Your task to perform on an android device: install app "Google Play services" Image 0: 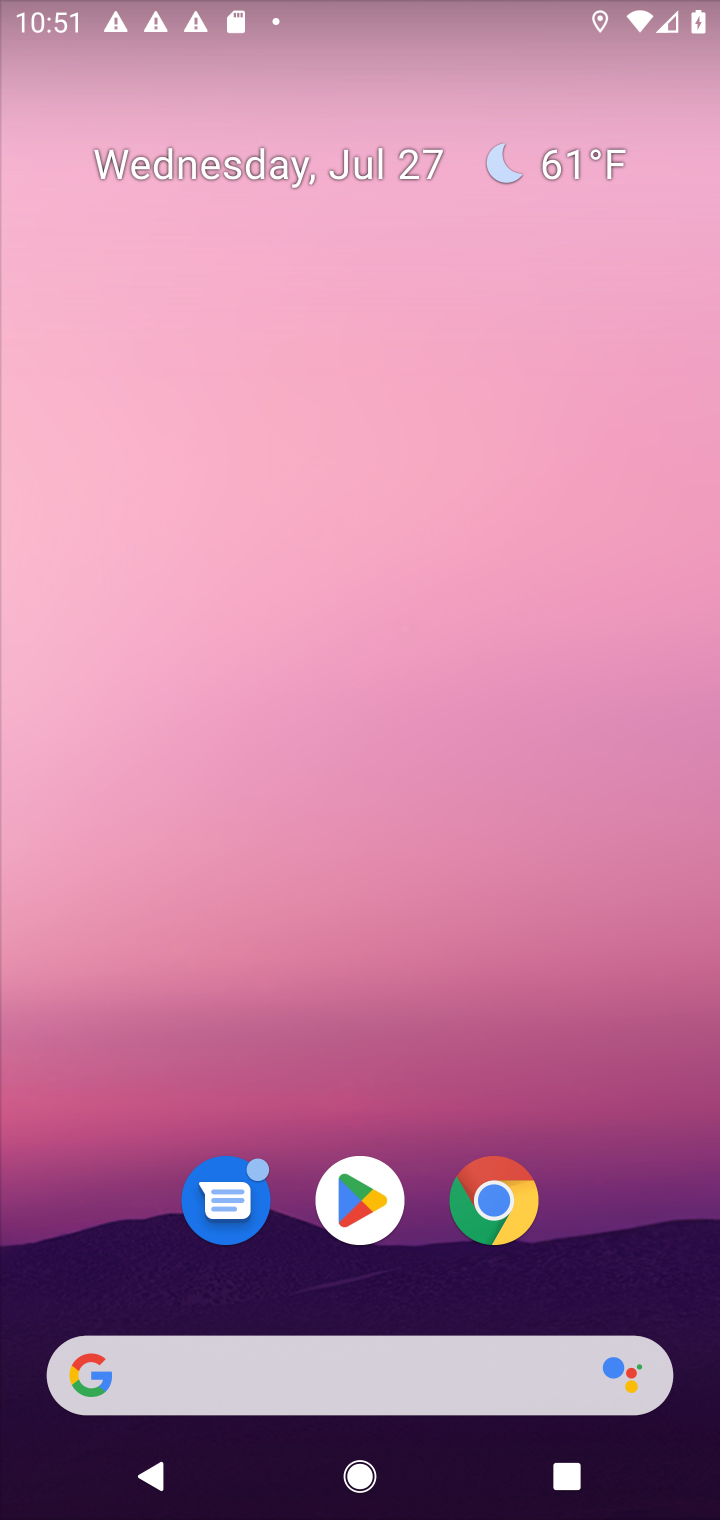
Step 0: press home button
Your task to perform on an android device: install app "Google Play services" Image 1: 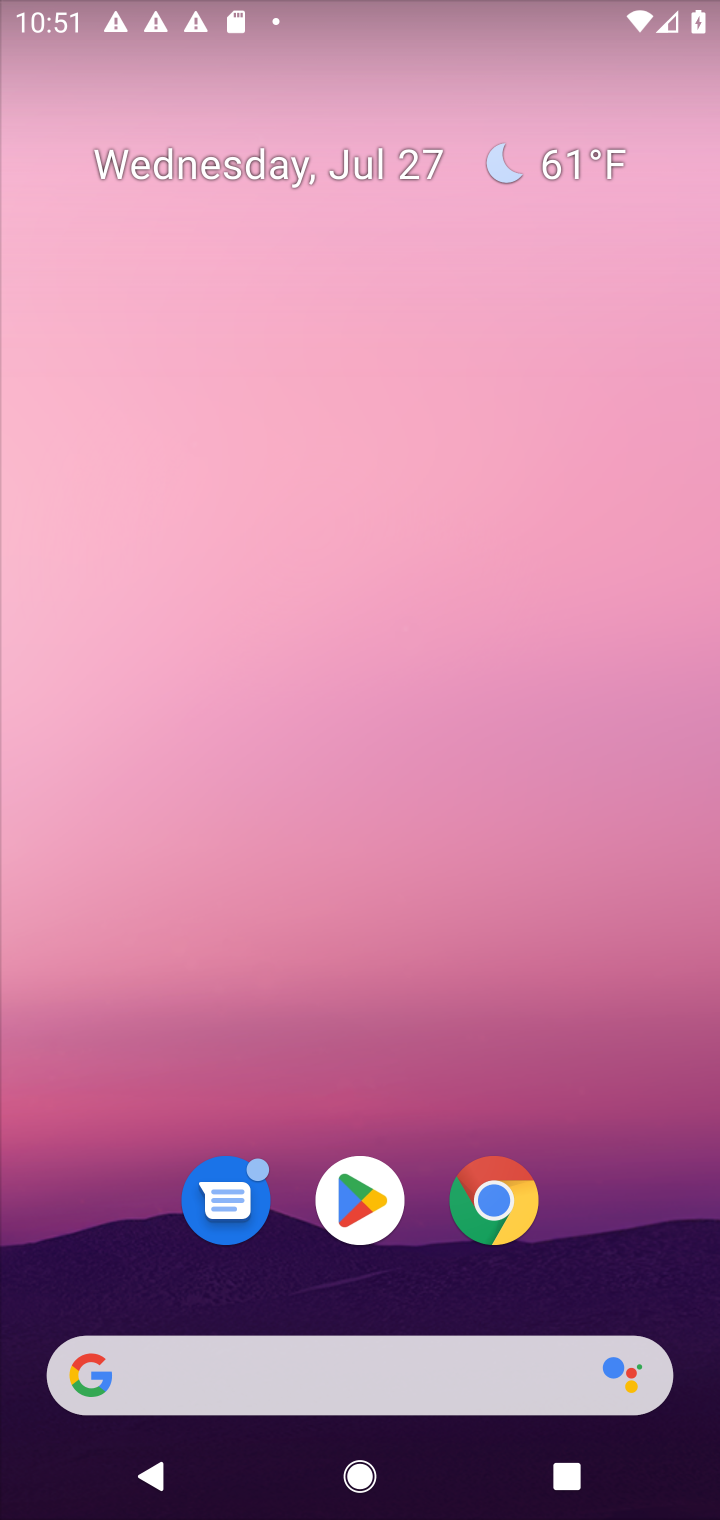
Step 1: click (353, 1221)
Your task to perform on an android device: install app "Google Play services" Image 2: 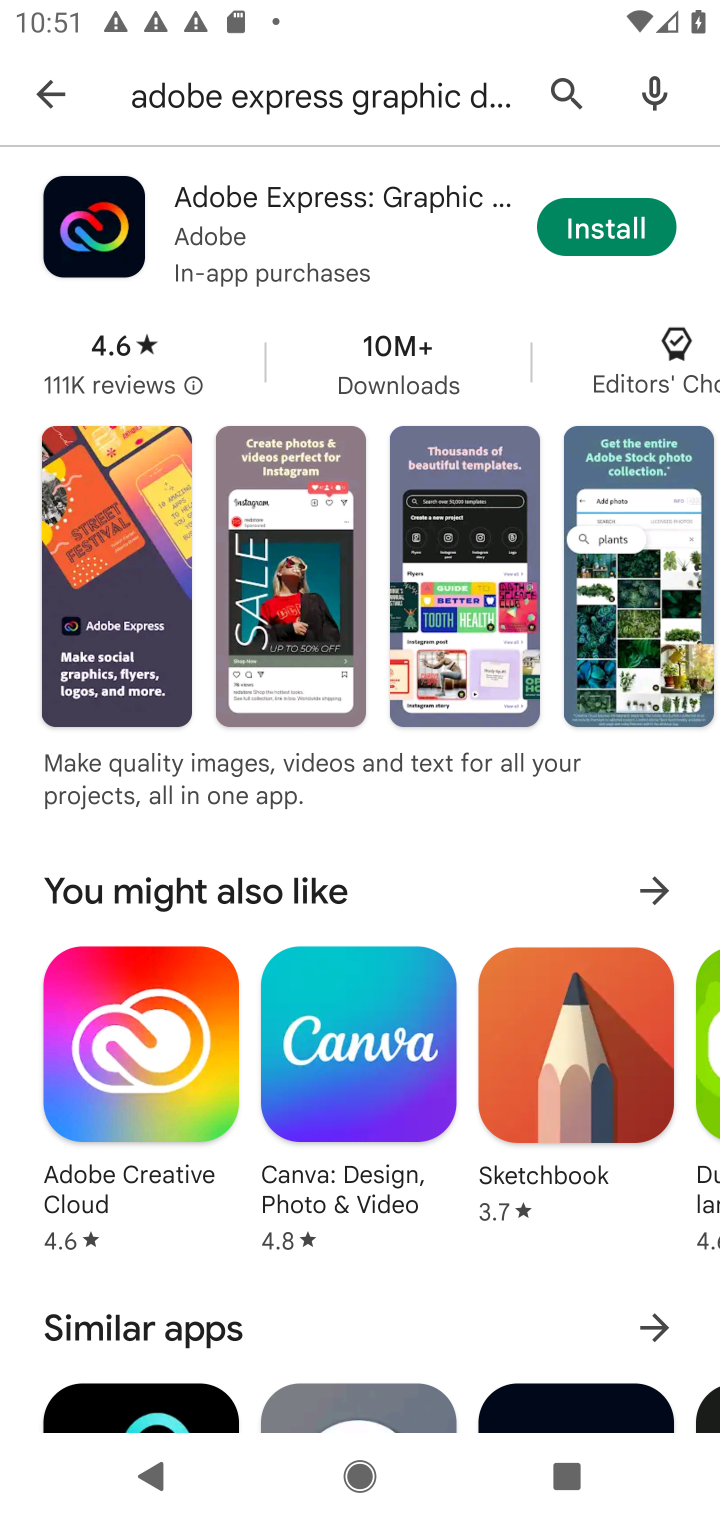
Step 2: click (51, 86)
Your task to perform on an android device: install app "Google Play services" Image 3: 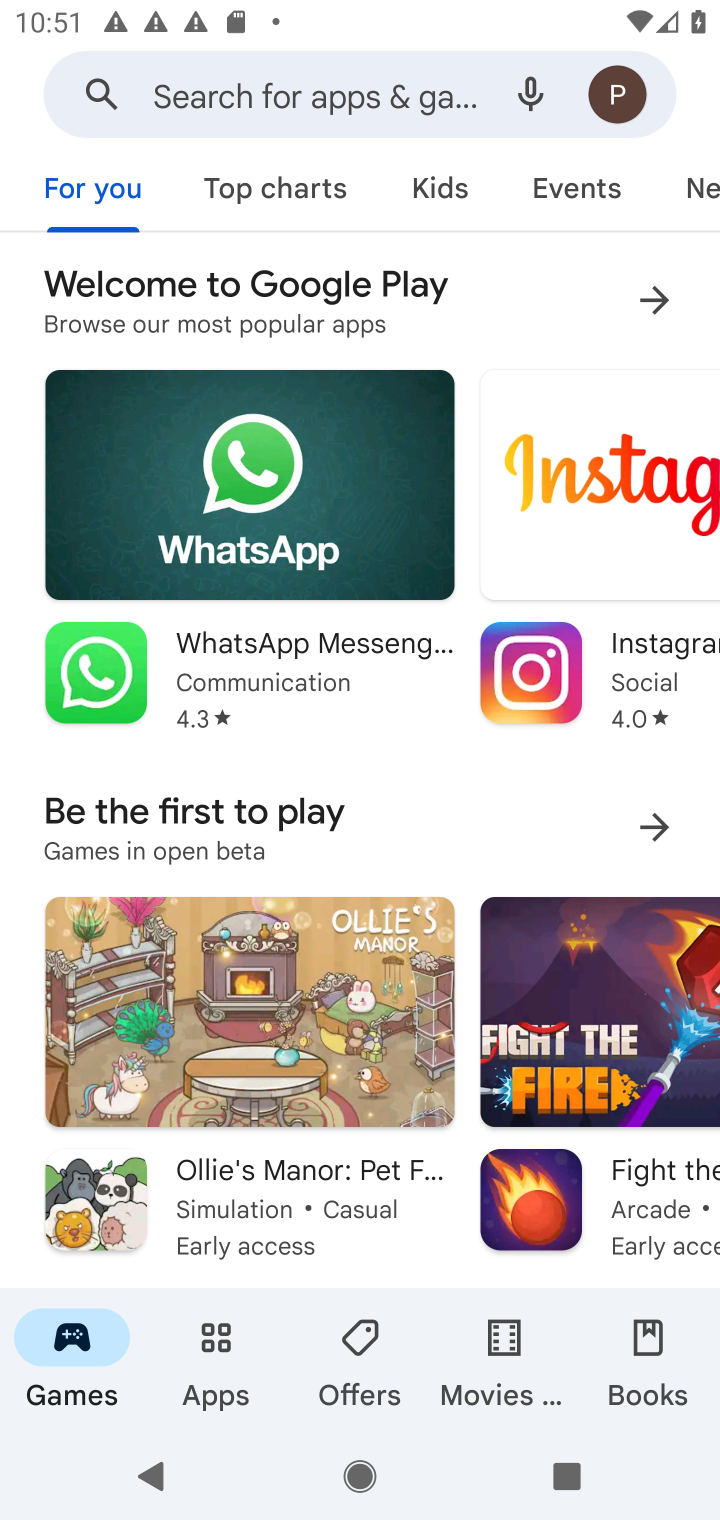
Step 3: click (401, 92)
Your task to perform on an android device: install app "Google Play services" Image 4: 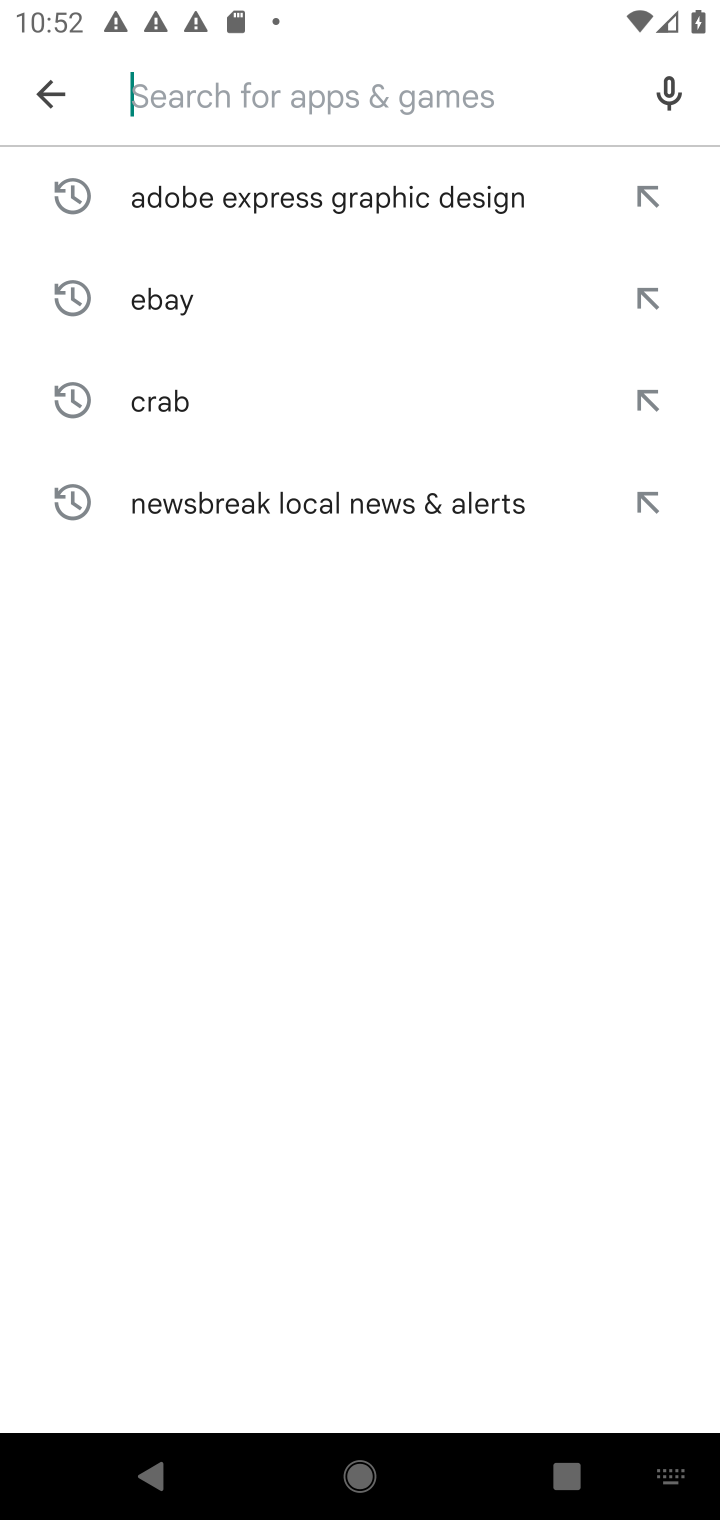
Step 4: type "google pay services"
Your task to perform on an android device: install app "Google Play services" Image 5: 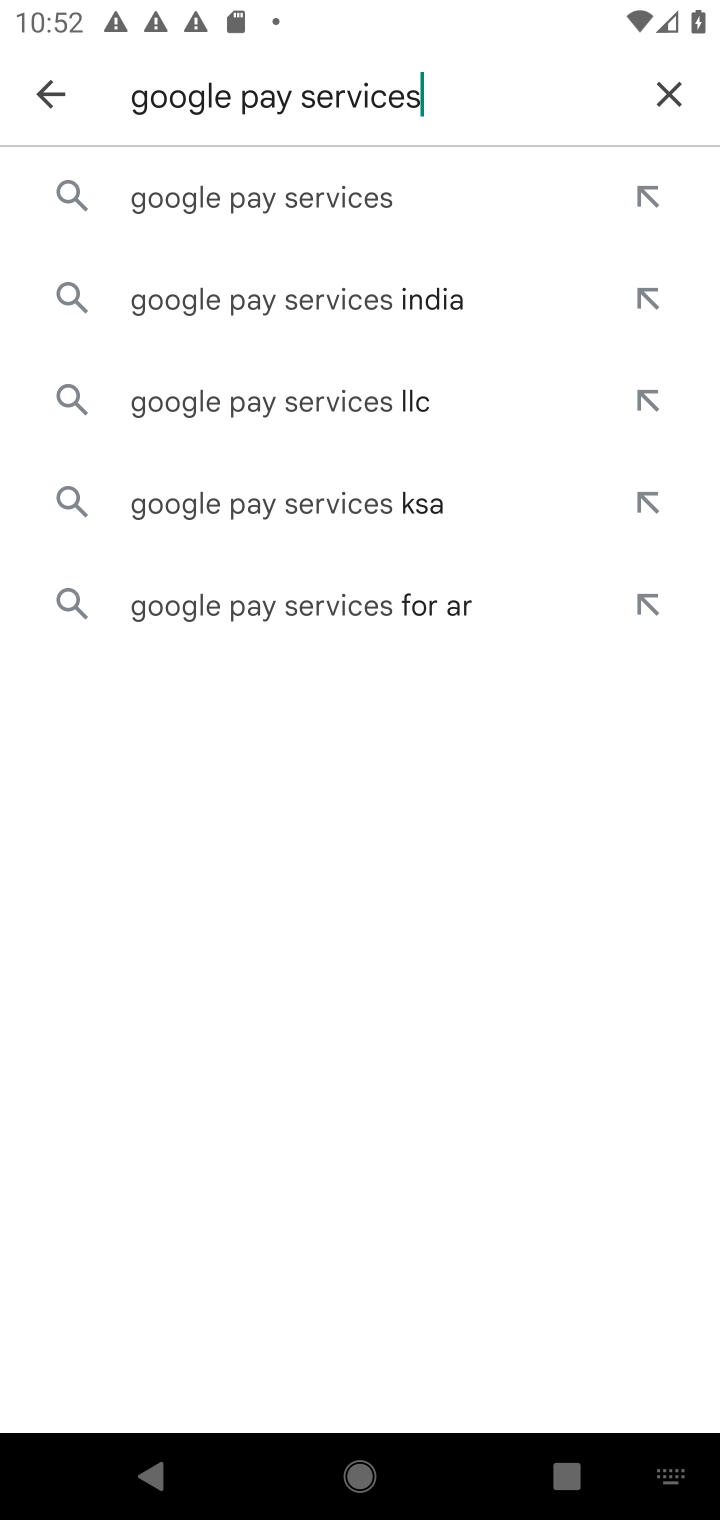
Step 5: click (280, 193)
Your task to perform on an android device: install app "Google Play services" Image 6: 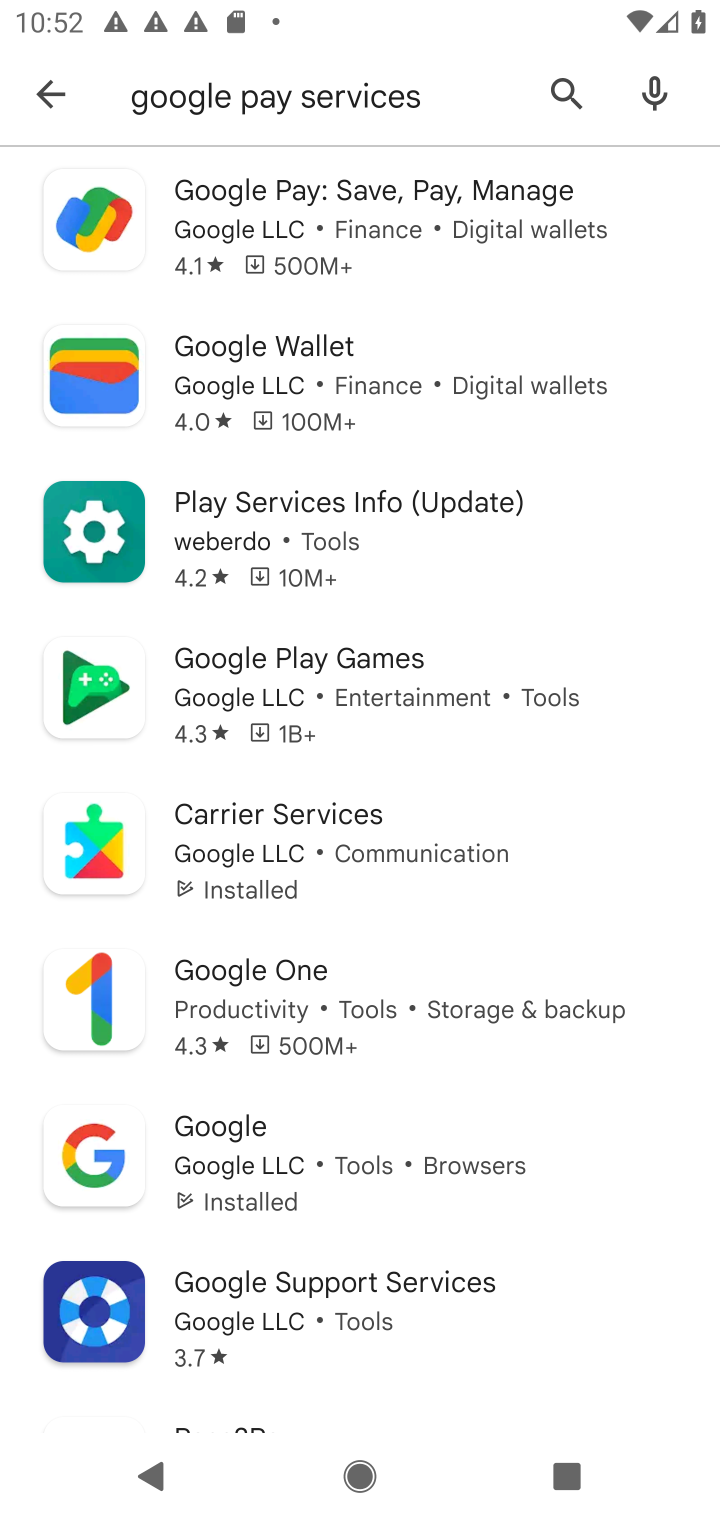
Step 6: click (247, 231)
Your task to perform on an android device: install app "Google Play services" Image 7: 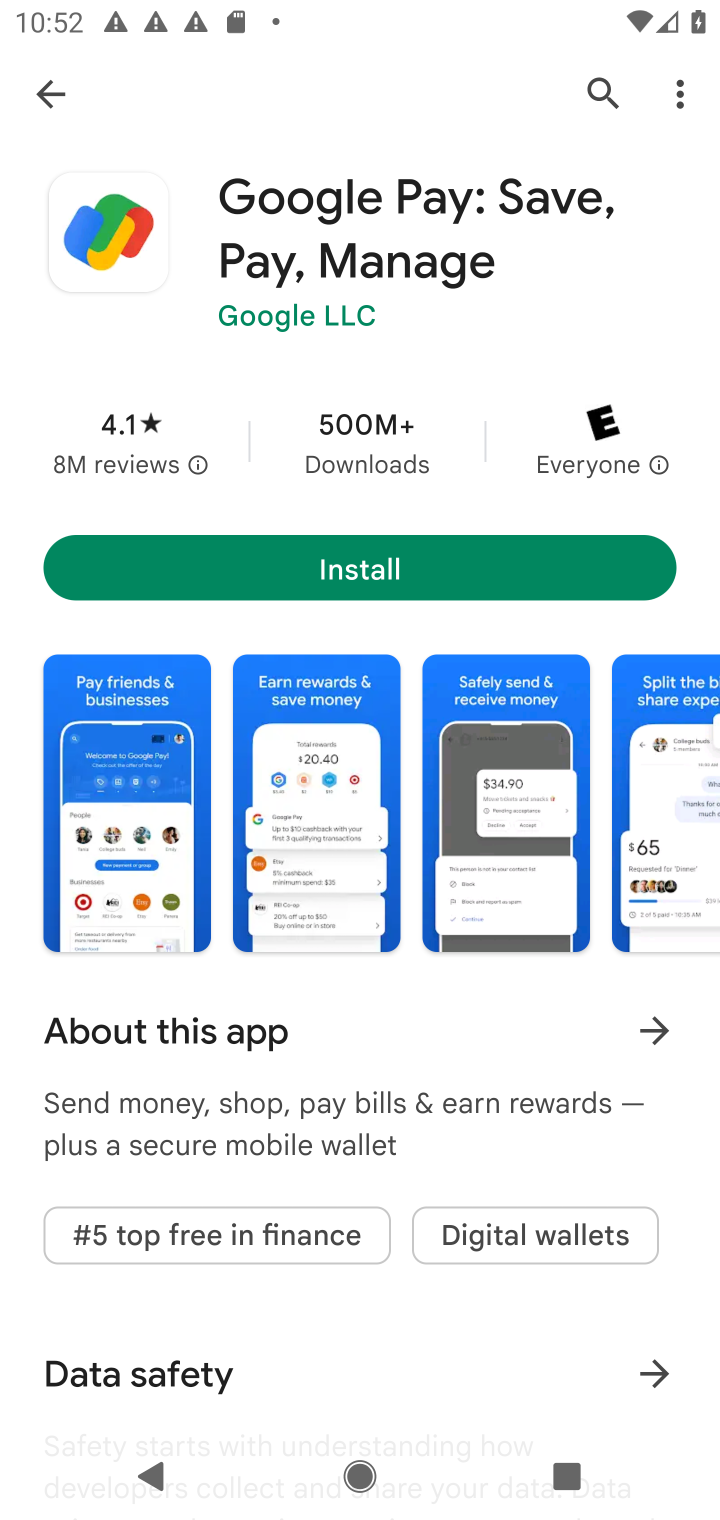
Step 7: click (391, 570)
Your task to perform on an android device: install app "Google Play services" Image 8: 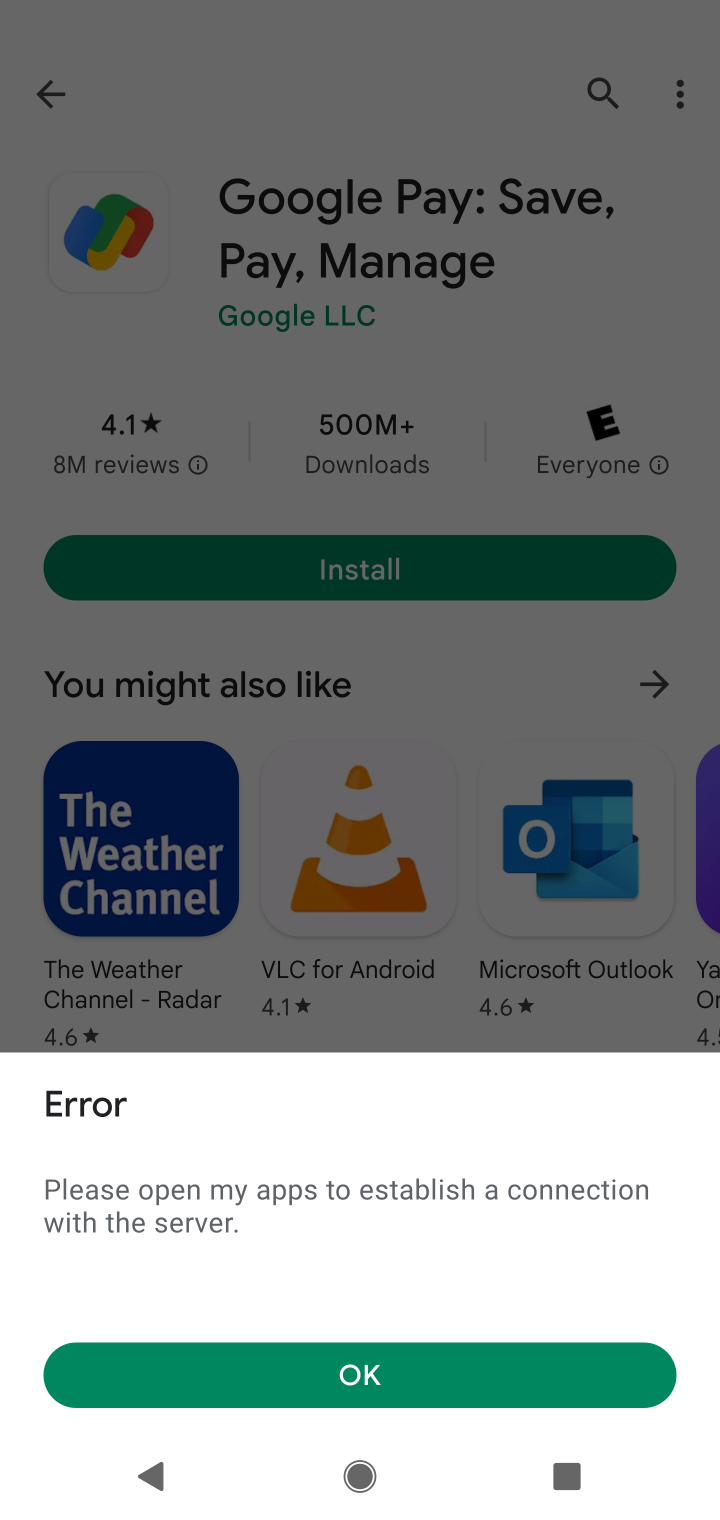
Step 8: task complete